Your task to perform on an android device: turn on the 12-hour format for clock Image 0: 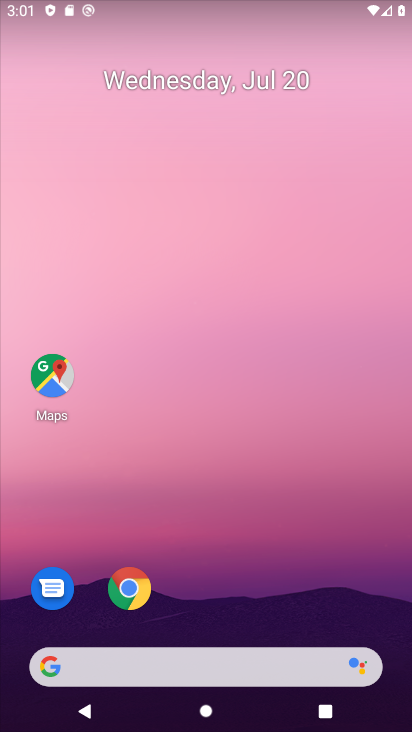
Step 0: drag from (254, 306) to (272, 41)
Your task to perform on an android device: turn on the 12-hour format for clock Image 1: 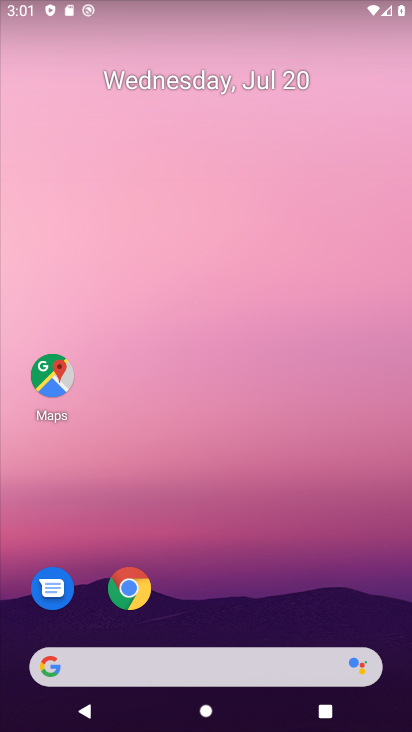
Step 1: drag from (210, 312) to (252, 75)
Your task to perform on an android device: turn on the 12-hour format for clock Image 2: 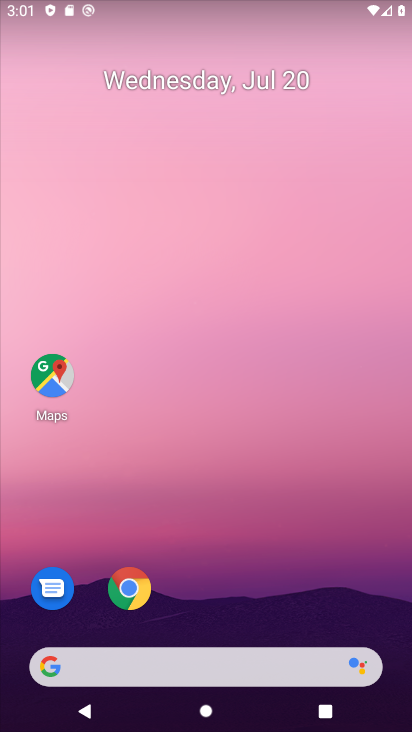
Step 2: drag from (172, 593) to (250, 261)
Your task to perform on an android device: turn on the 12-hour format for clock Image 3: 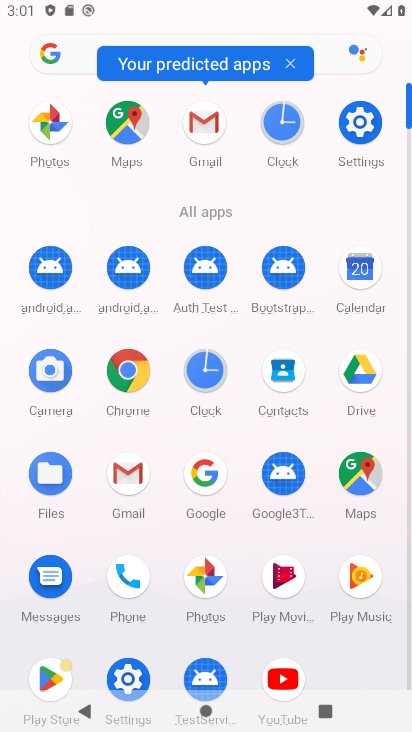
Step 3: click (289, 130)
Your task to perform on an android device: turn on the 12-hour format for clock Image 4: 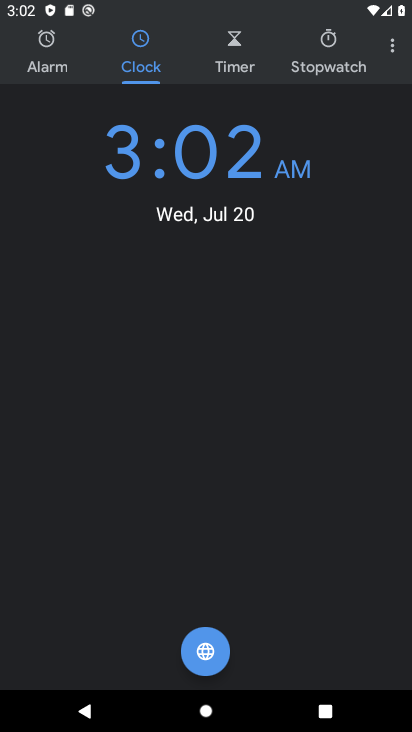
Step 4: click (394, 46)
Your task to perform on an android device: turn on the 12-hour format for clock Image 5: 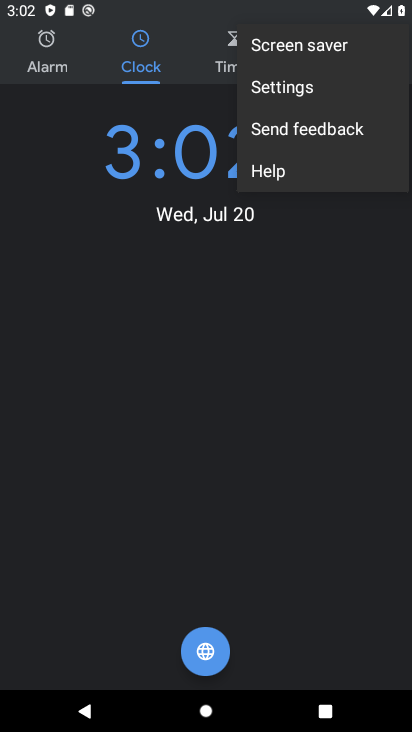
Step 5: click (316, 90)
Your task to perform on an android device: turn on the 12-hour format for clock Image 6: 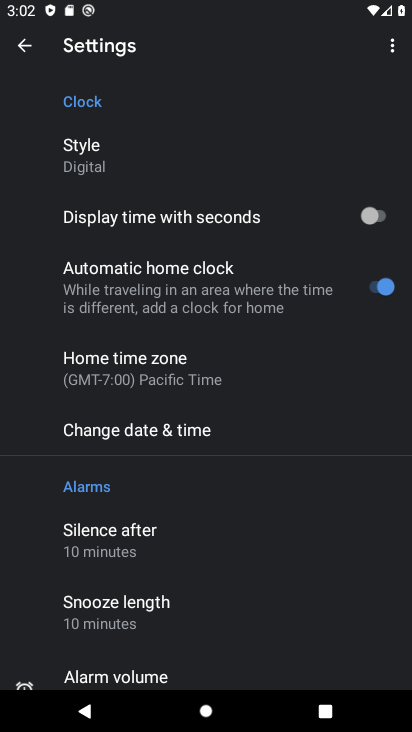
Step 6: click (213, 442)
Your task to perform on an android device: turn on the 12-hour format for clock Image 7: 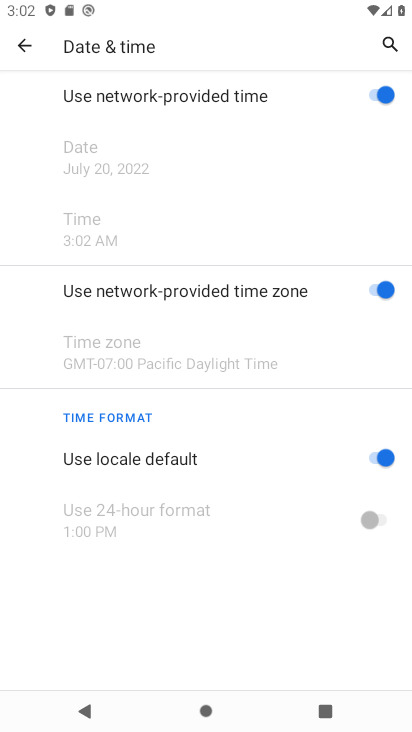
Step 7: click (367, 450)
Your task to perform on an android device: turn on the 12-hour format for clock Image 8: 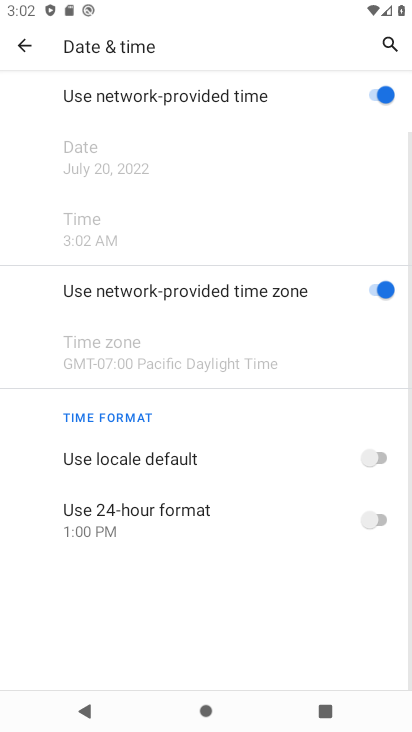
Step 8: click (384, 517)
Your task to perform on an android device: turn on the 12-hour format for clock Image 9: 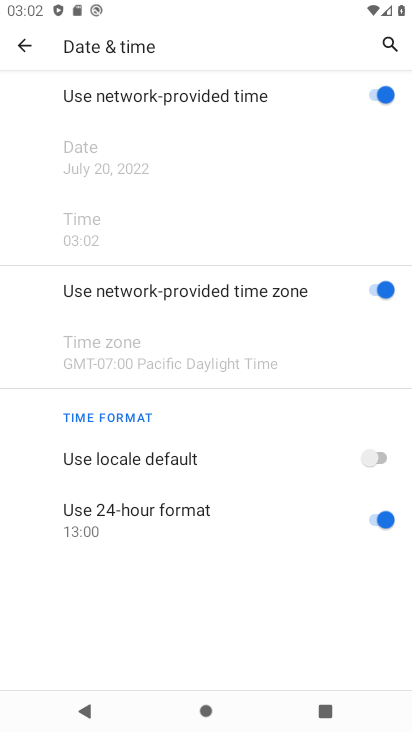
Step 9: task complete